Your task to perform on an android device: Open Google Maps Image 0: 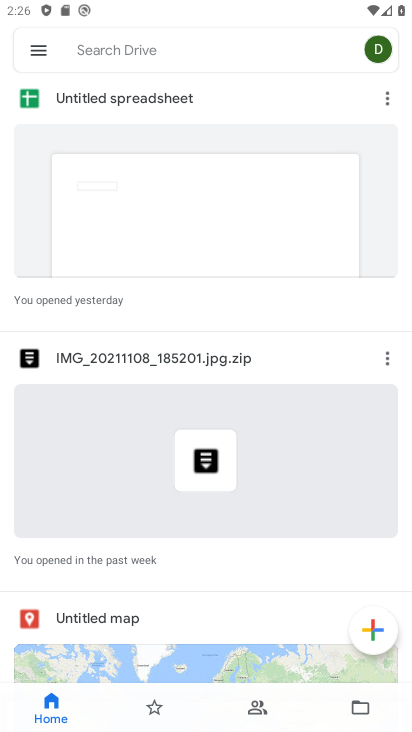
Step 0: press home button
Your task to perform on an android device: Open Google Maps Image 1: 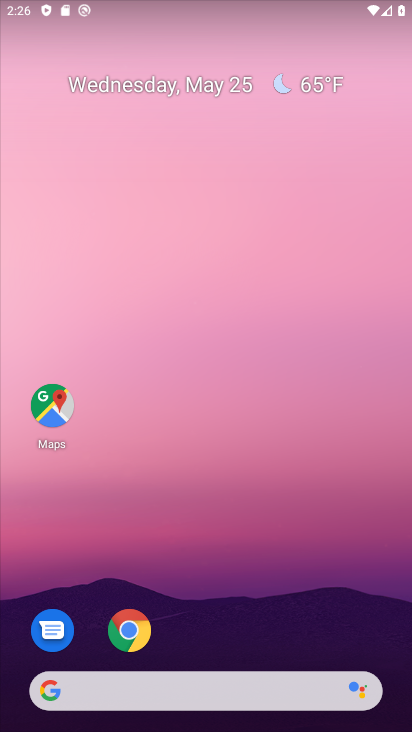
Step 1: drag from (205, 650) to (199, 54)
Your task to perform on an android device: Open Google Maps Image 2: 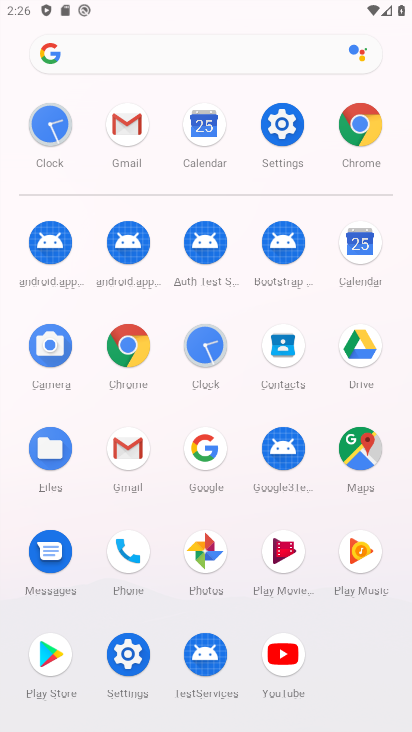
Step 2: click (358, 441)
Your task to perform on an android device: Open Google Maps Image 3: 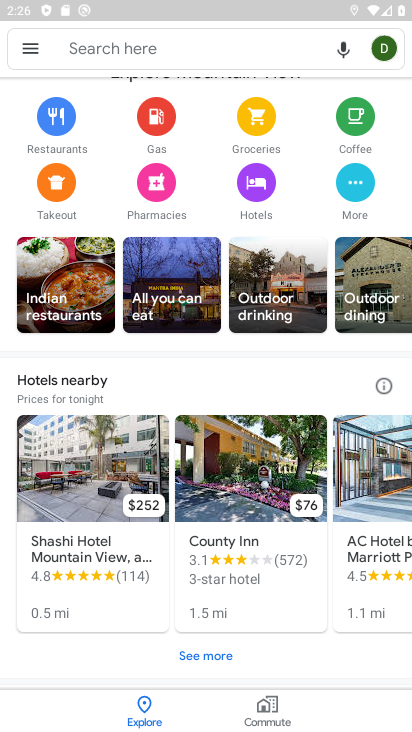
Step 3: drag from (200, 121) to (189, 517)
Your task to perform on an android device: Open Google Maps Image 4: 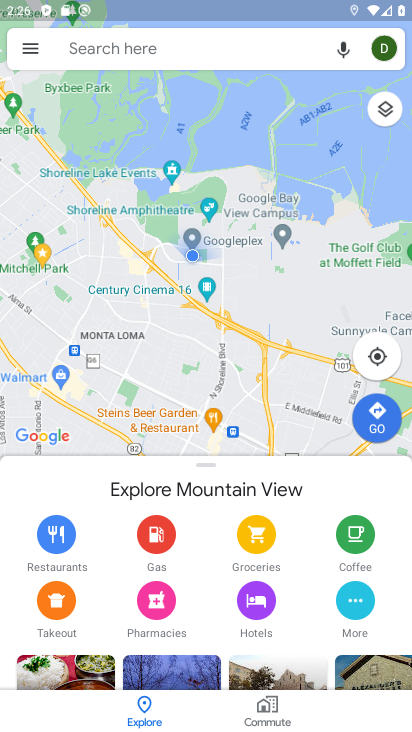
Step 4: click (379, 413)
Your task to perform on an android device: Open Google Maps Image 5: 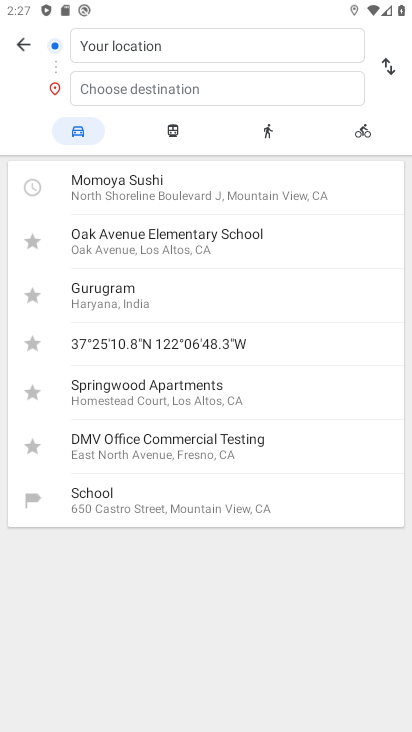
Step 5: click (17, 41)
Your task to perform on an android device: Open Google Maps Image 6: 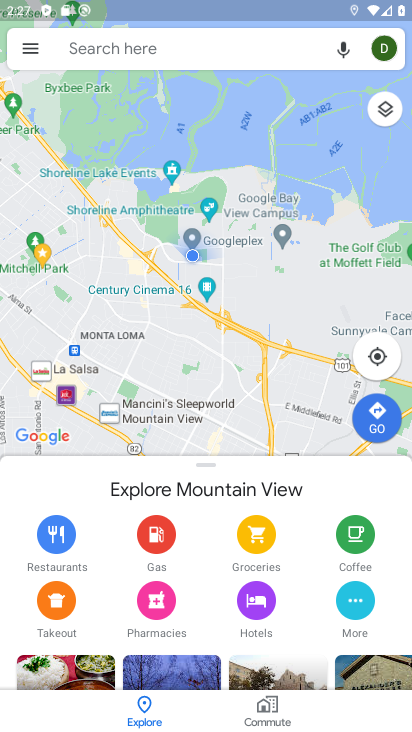
Step 6: task complete